Your task to perform on an android device: Go to Google maps Image 0: 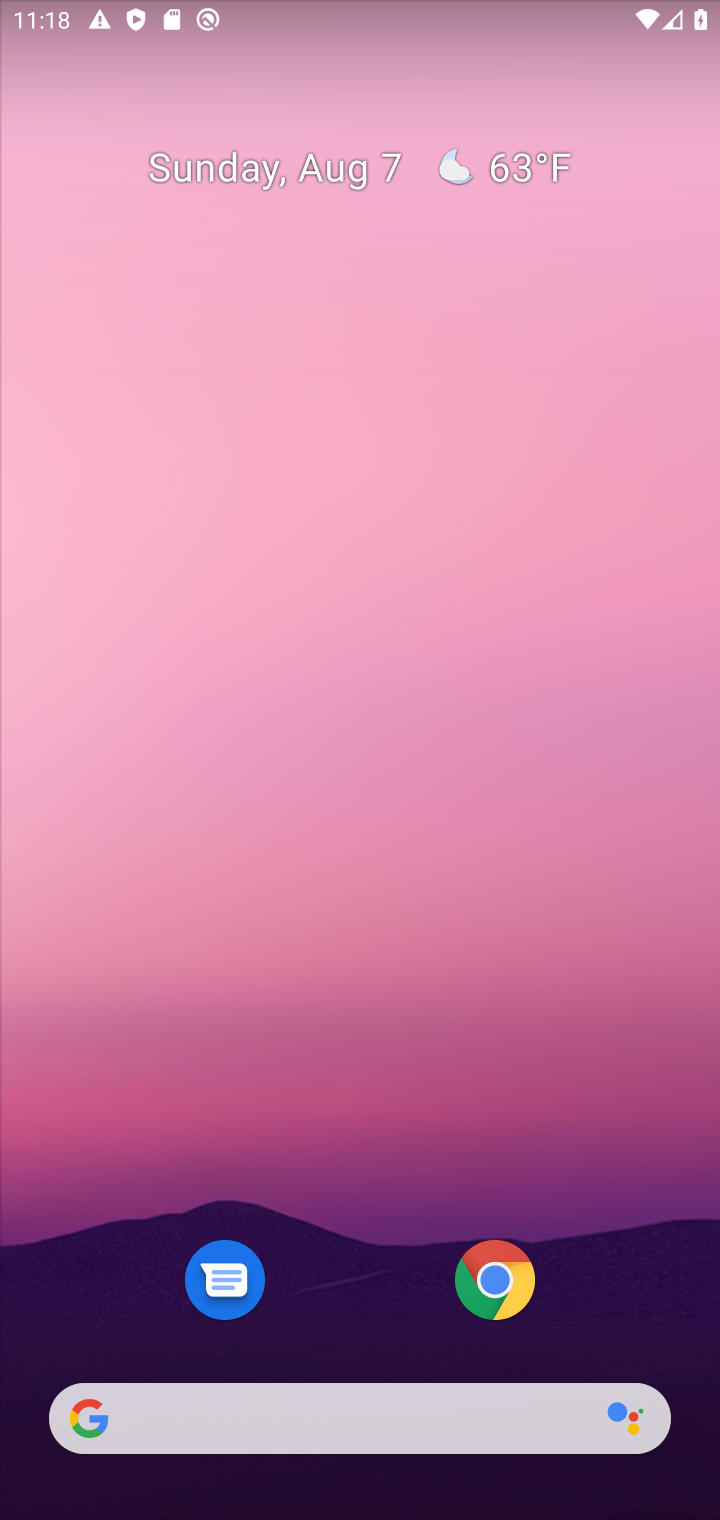
Step 0: drag from (392, 1313) to (415, 83)
Your task to perform on an android device: Go to Google maps Image 1: 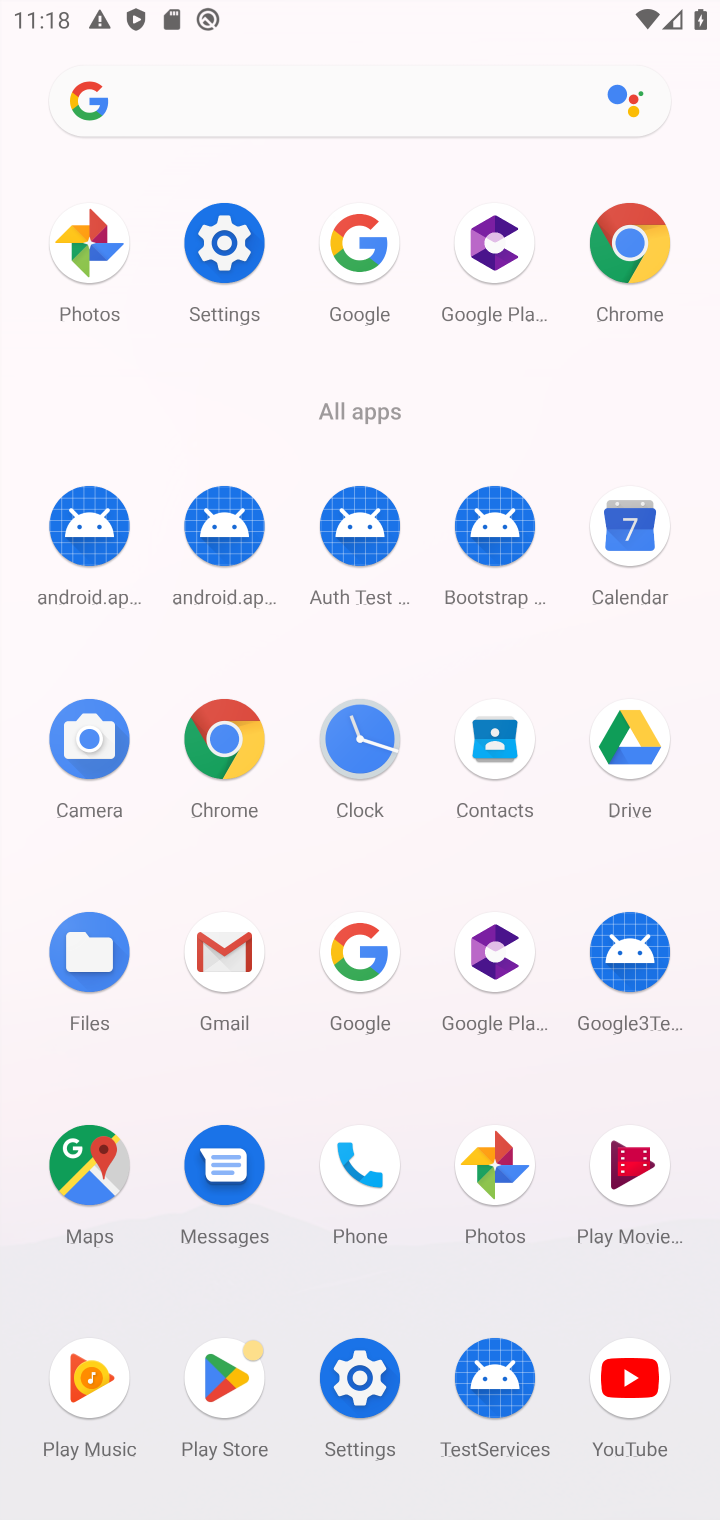
Step 1: click (98, 1163)
Your task to perform on an android device: Go to Google maps Image 2: 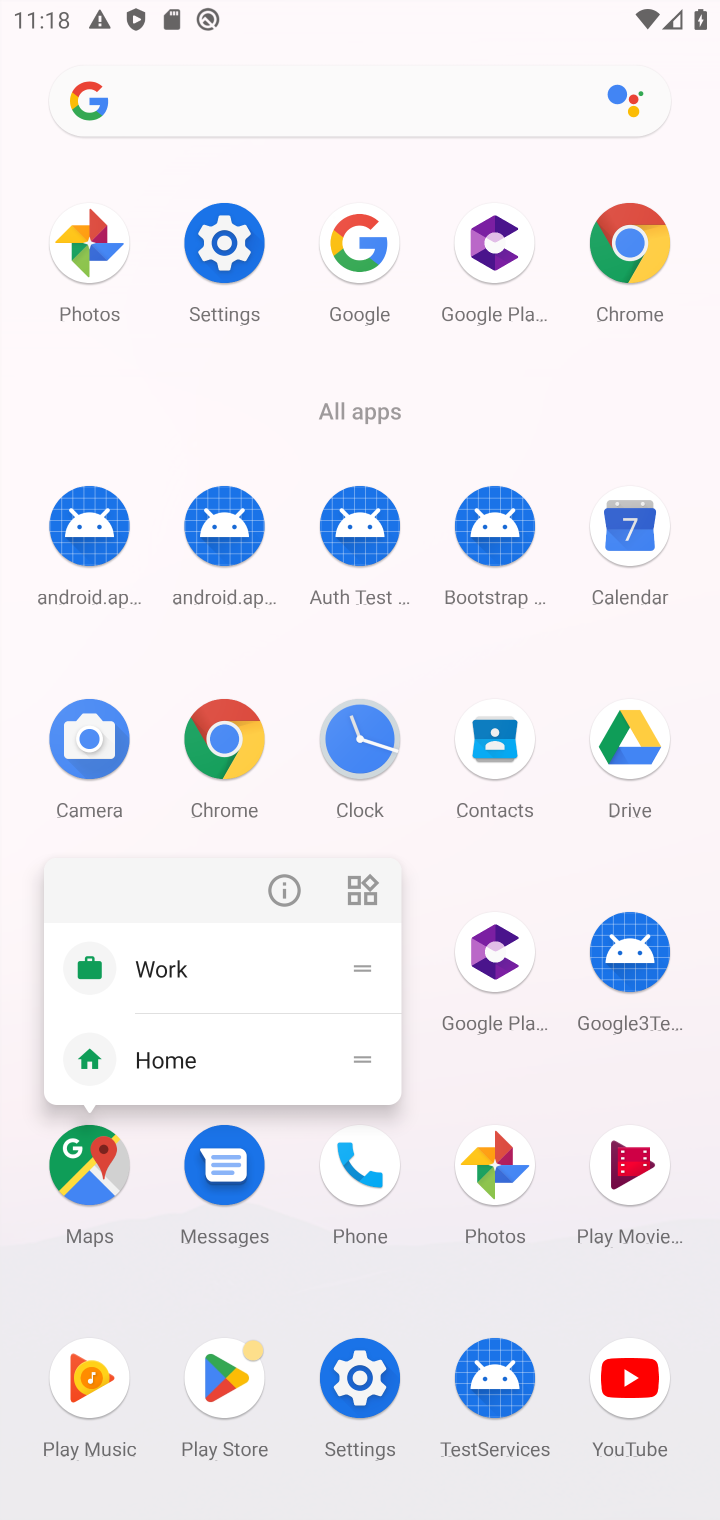
Step 2: click (96, 1167)
Your task to perform on an android device: Go to Google maps Image 3: 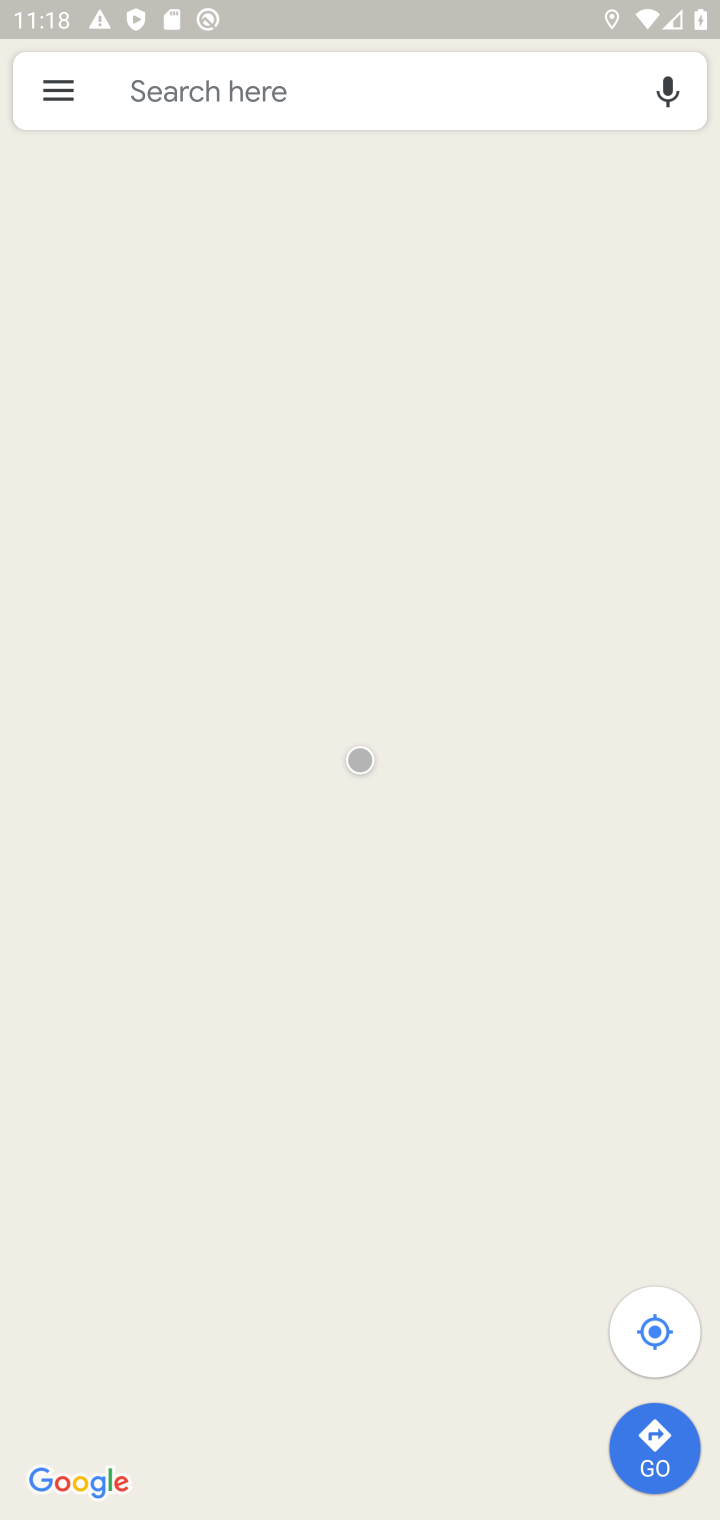
Step 3: task complete